Your task to perform on an android device: Open battery settings Image 0: 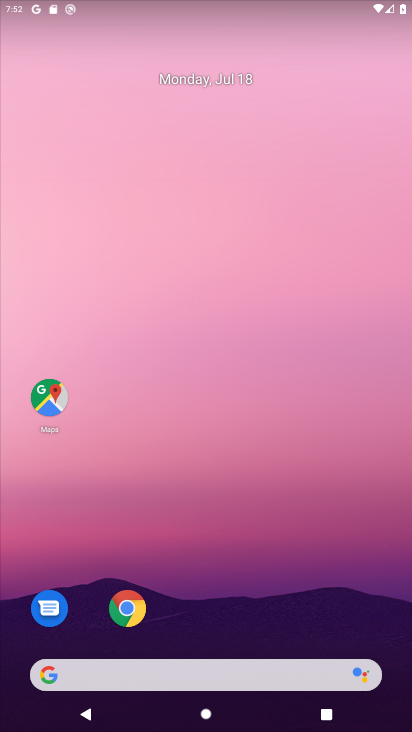
Step 0: drag from (213, 643) to (163, 90)
Your task to perform on an android device: Open battery settings Image 1: 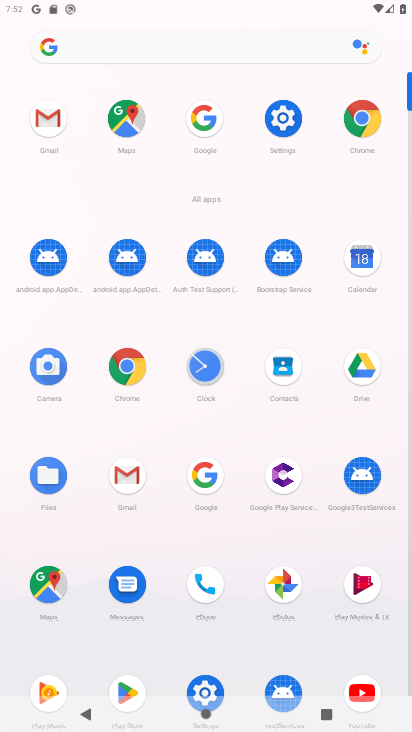
Step 1: click (304, 116)
Your task to perform on an android device: Open battery settings Image 2: 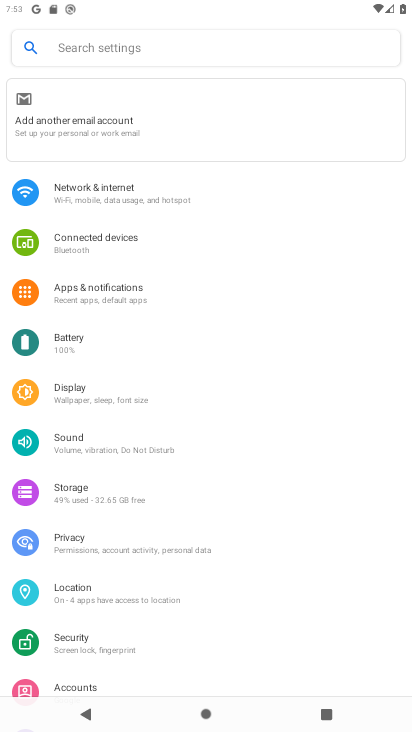
Step 2: click (91, 336)
Your task to perform on an android device: Open battery settings Image 3: 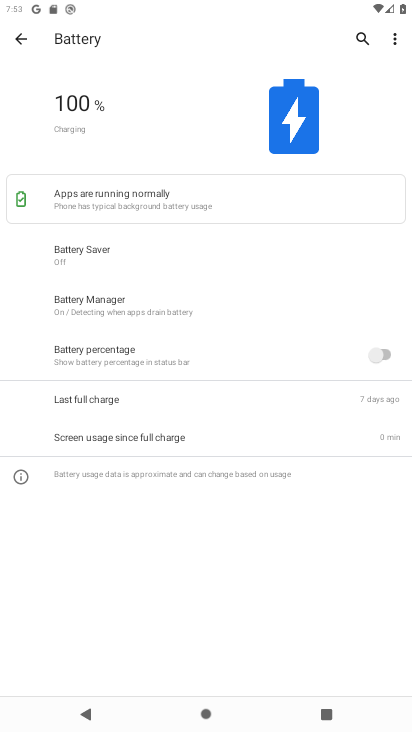
Step 3: task complete